Your task to perform on an android device: Search for a 24-inch cordless drill. Image 0: 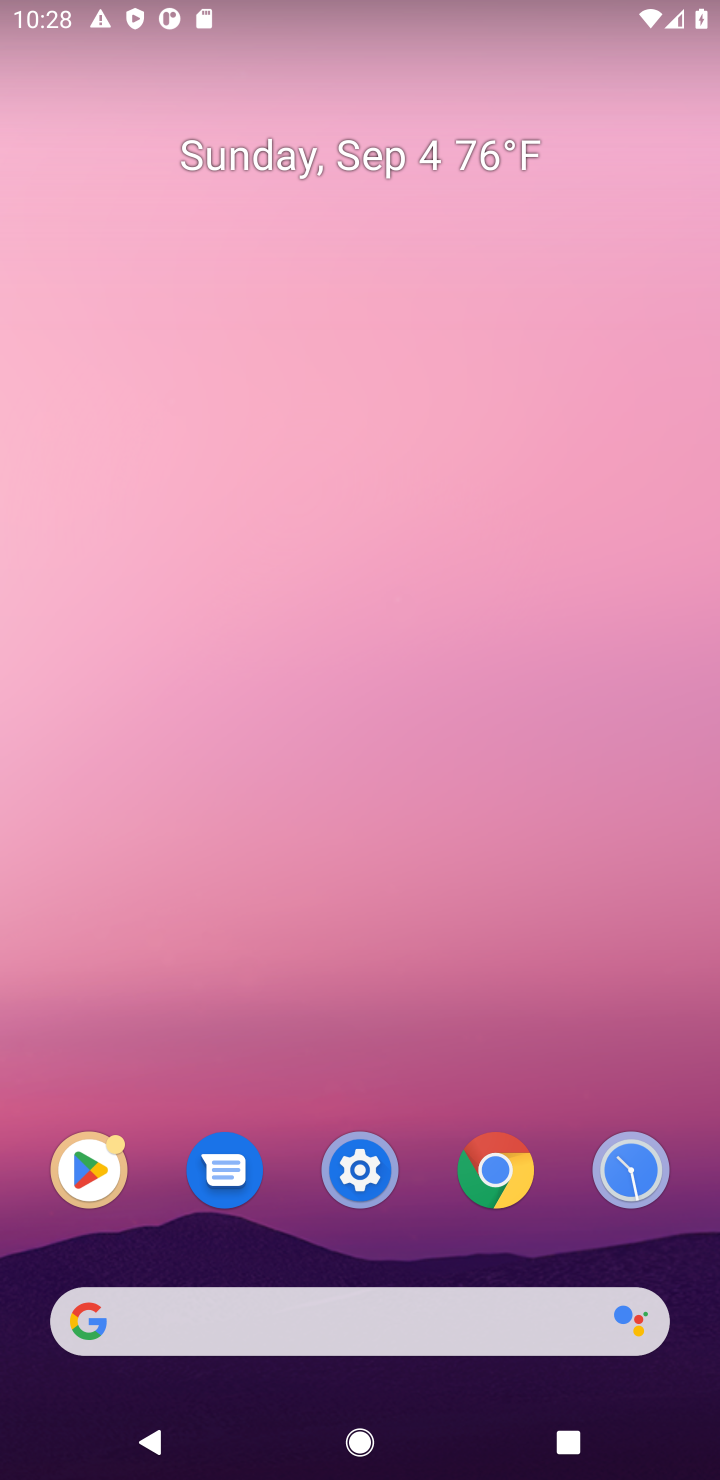
Step 0: click (378, 1310)
Your task to perform on an android device: Search for a 24-inch cordless drill. Image 1: 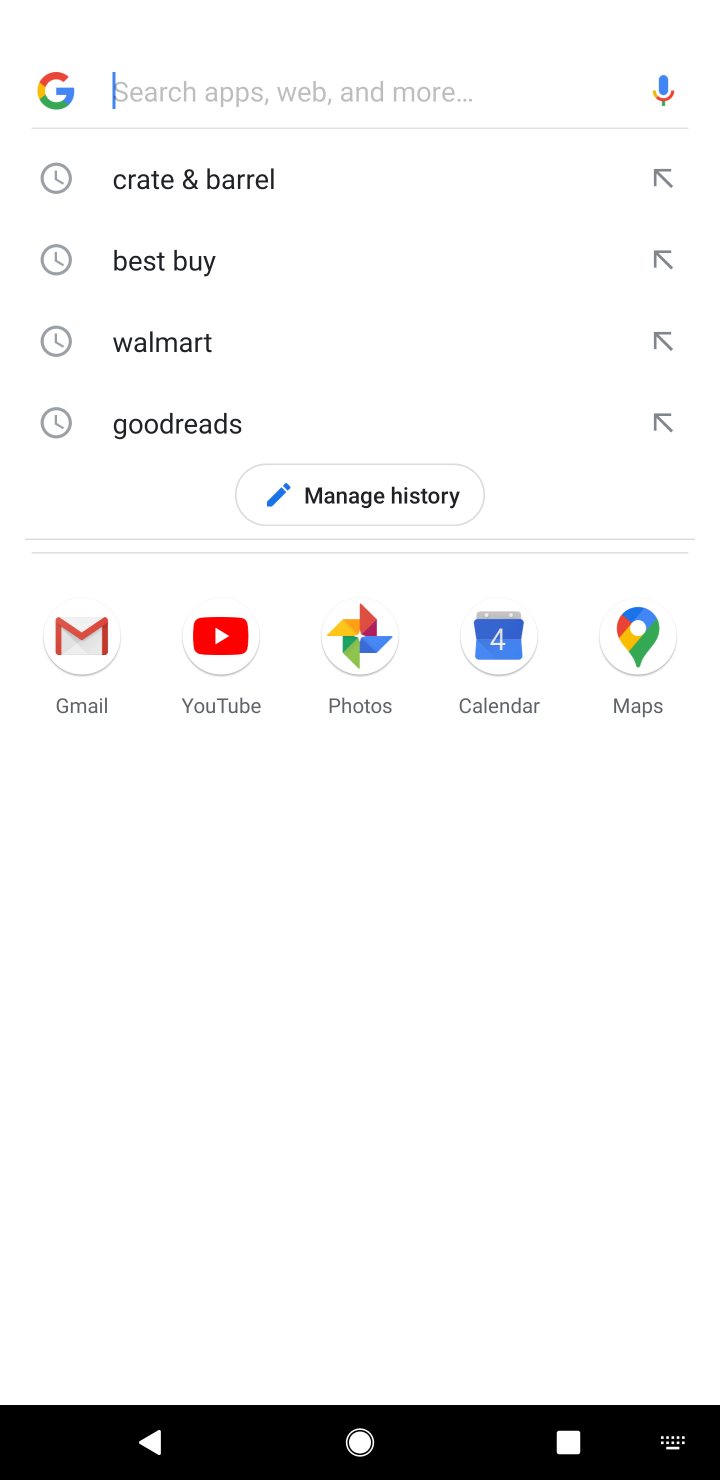
Step 1: type "24-inch cordless drill"
Your task to perform on an android device: Search for a 24-inch cordless drill. Image 2: 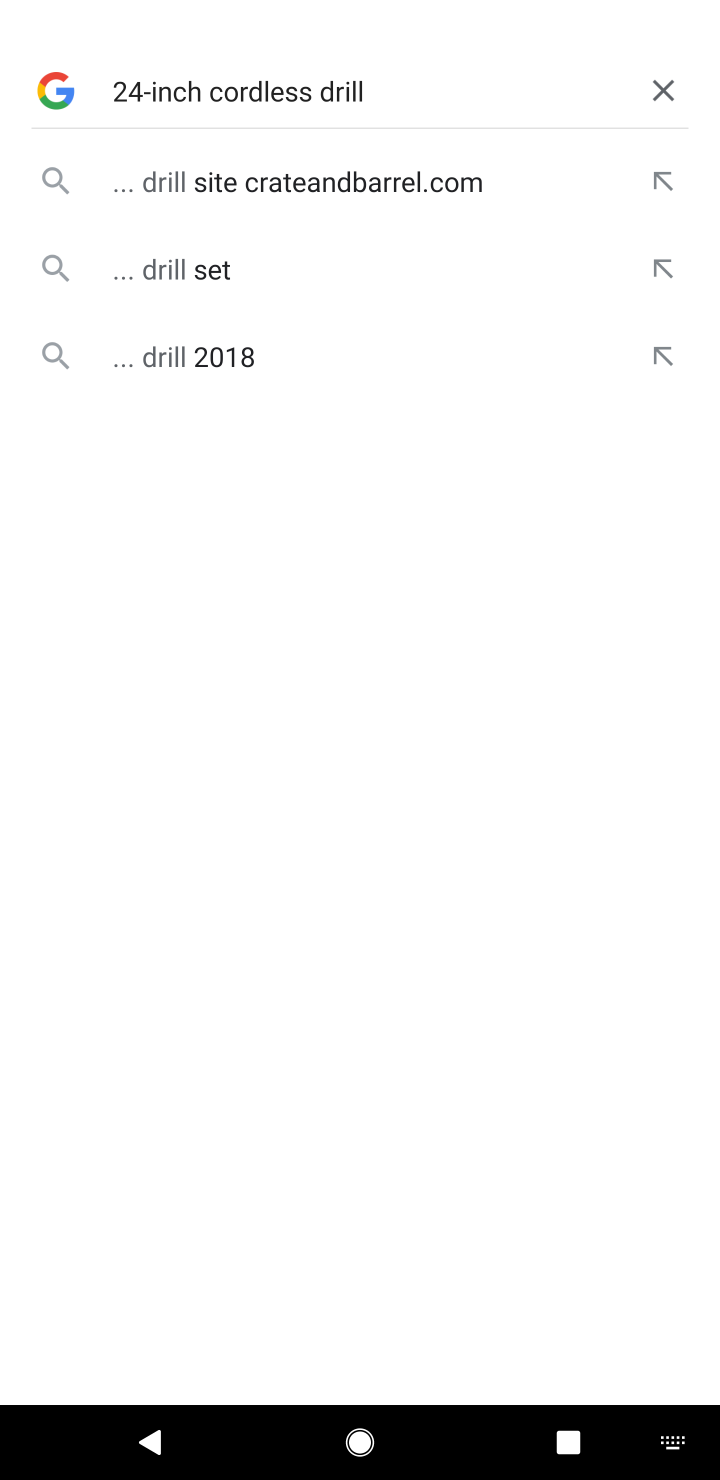
Step 2: click (243, 284)
Your task to perform on an android device: Search for a 24-inch cordless drill. Image 3: 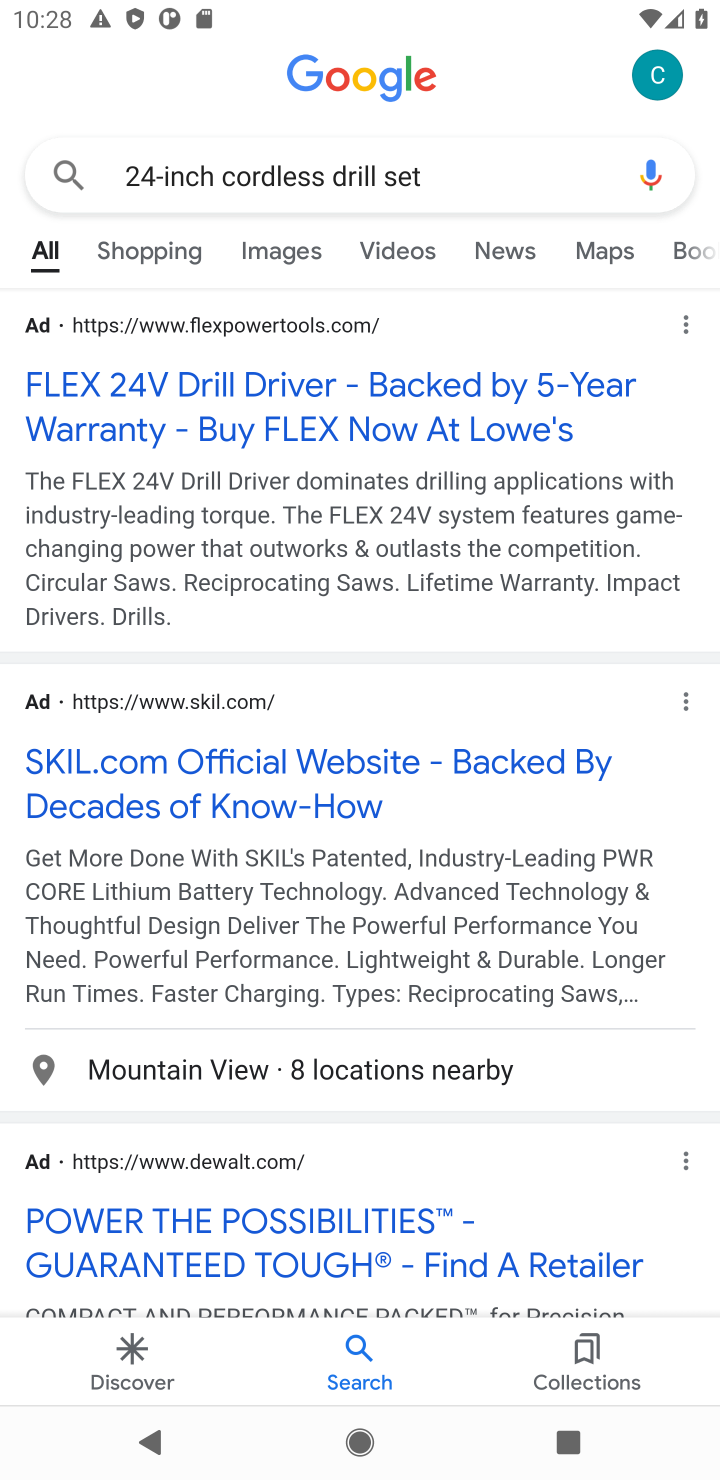
Step 3: drag from (245, 966) to (333, 505)
Your task to perform on an android device: Search for a 24-inch cordless drill. Image 4: 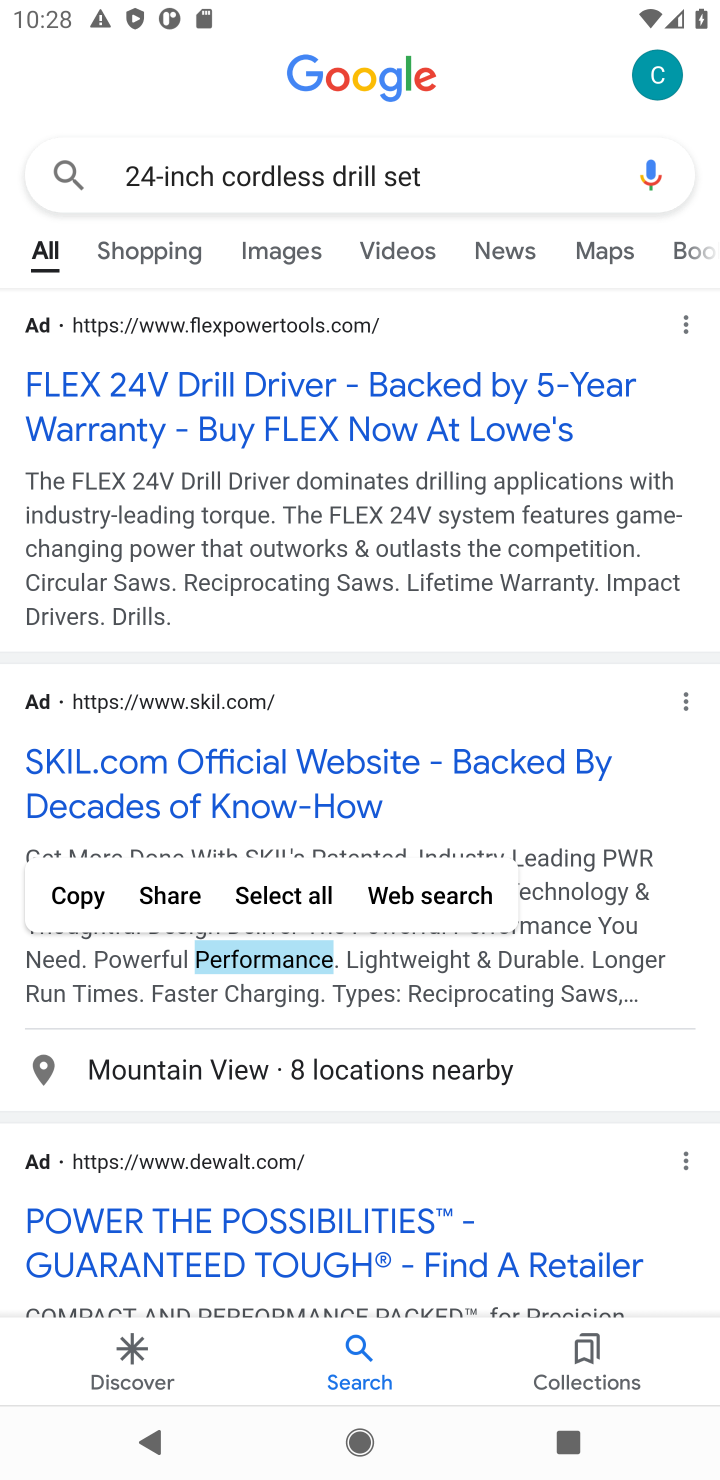
Step 4: drag from (195, 637) to (258, 548)
Your task to perform on an android device: Search for a 24-inch cordless drill. Image 5: 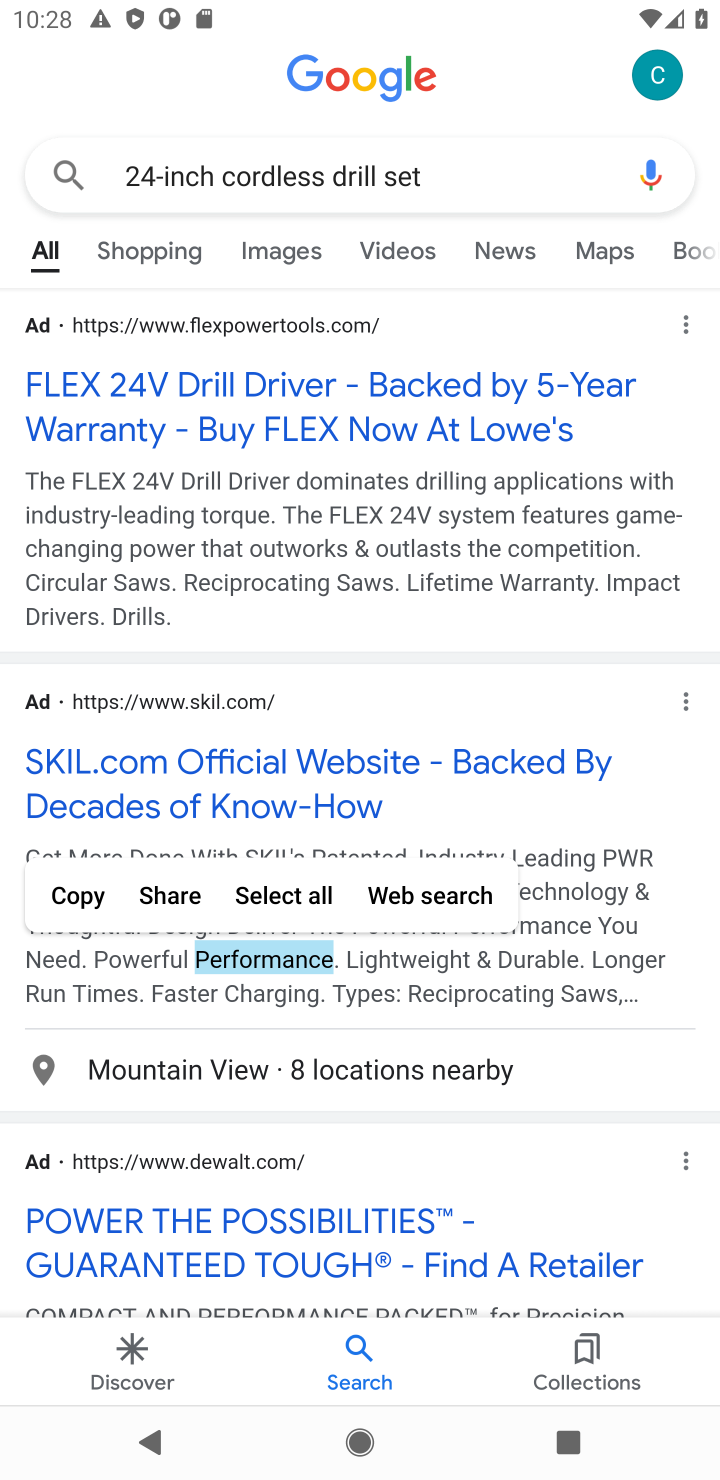
Step 5: click (499, 659)
Your task to perform on an android device: Search for a 24-inch cordless drill. Image 6: 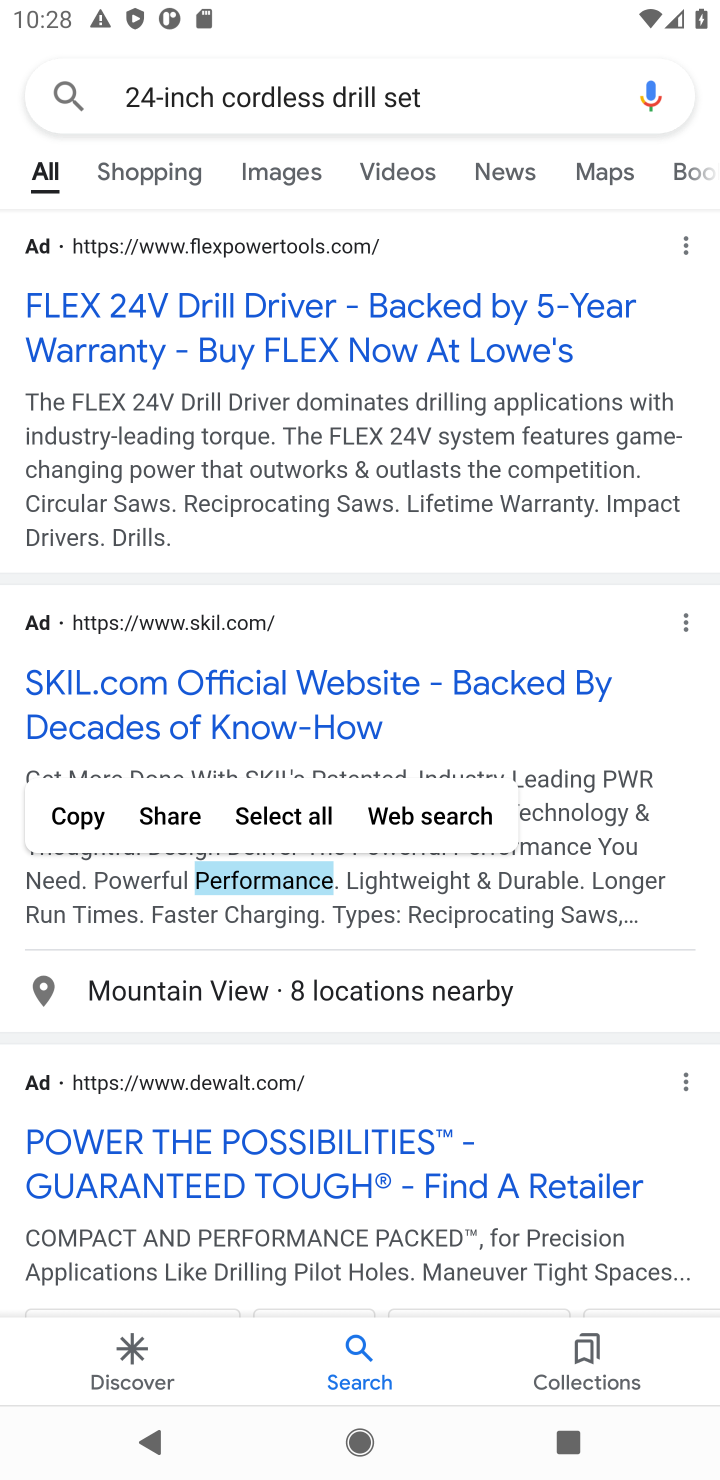
Step 6: click (391, 521)
Your task to perform on an android device: Search for a 24-inch cordless drill. Image 7: 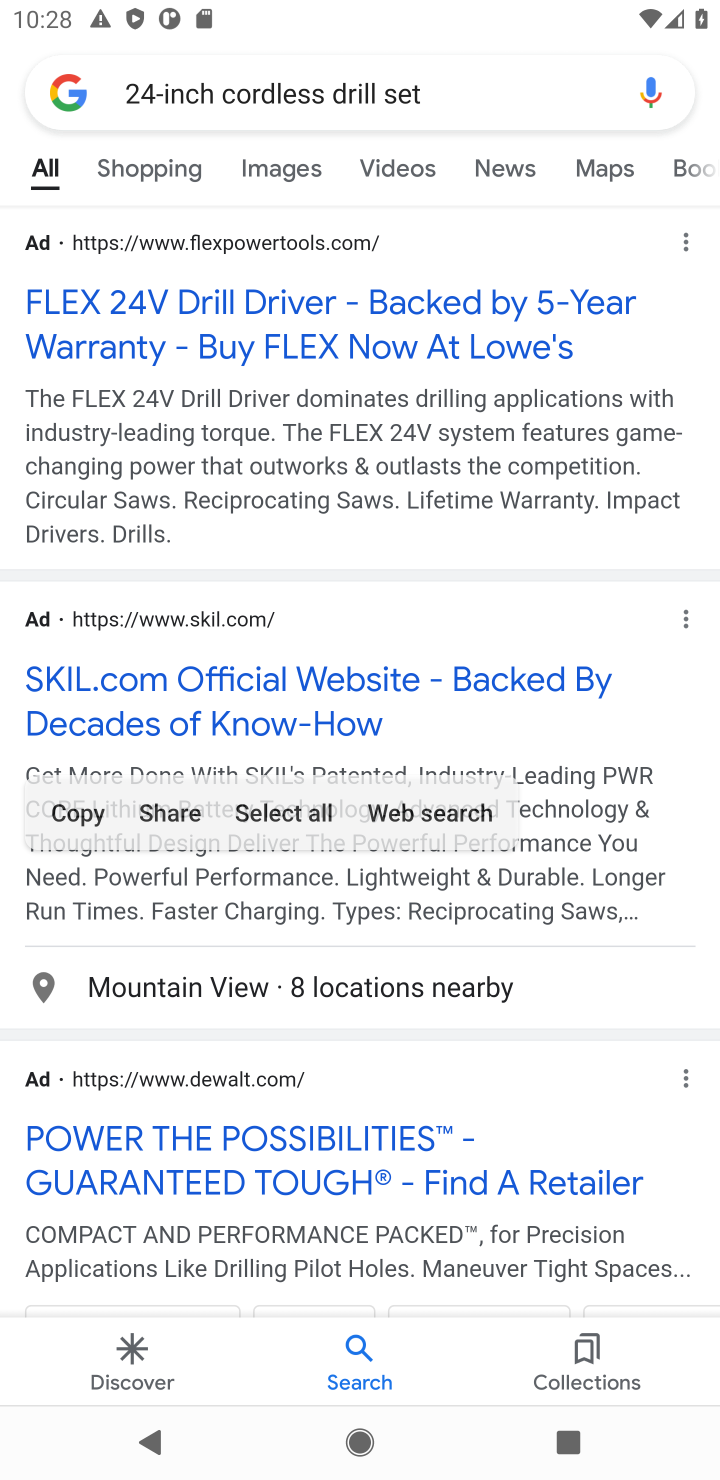
Step 7: task complete